Your task to perform on an android device: toggle sleep mode Image 0: 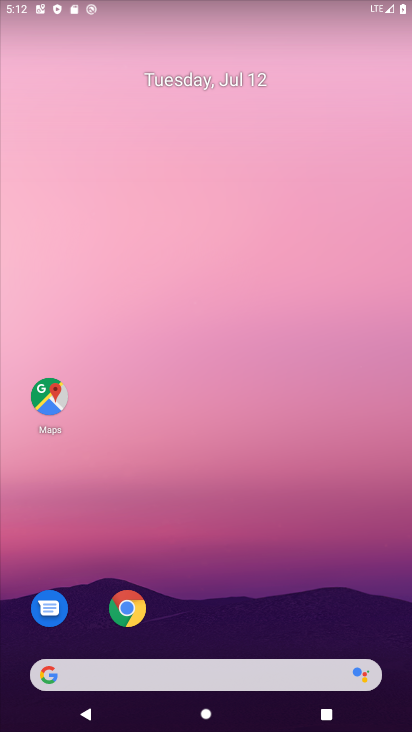
Step 0: drag from (228, 9) to (190, 595)
Your task to perform on an android device: toggle sleep mode Image 1: 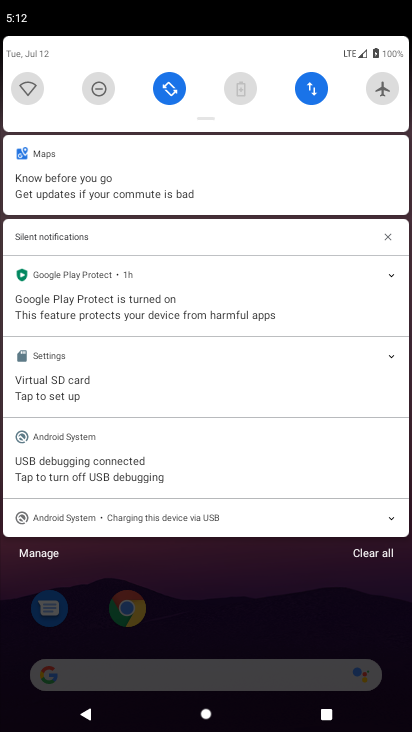
Step 1: drag from (209, 66) to (238, 604)
Your task to perform on an android device: toggle sleep mode Image 2: 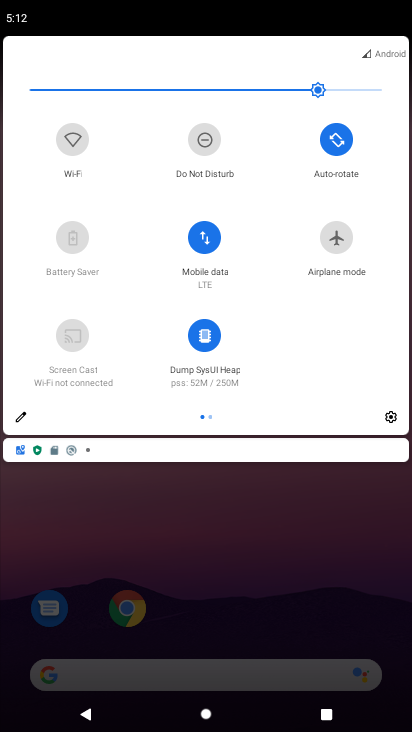
Step 2: click (388, 411)
Your task to perform on an android device: toggle sleep mode Image 3: 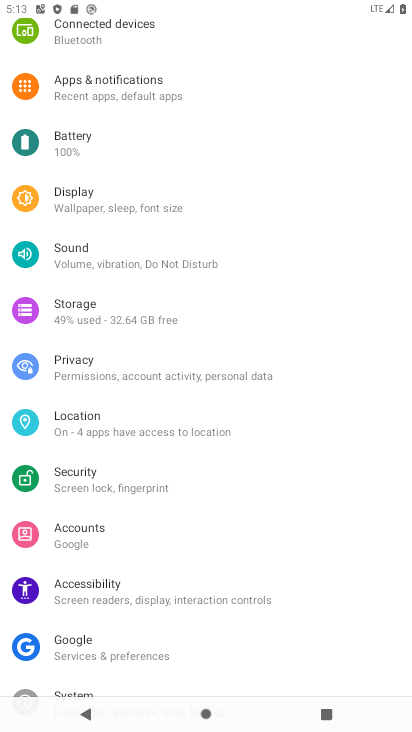
Step 3: task complete